Your task to perform on an android device: Open Google Image 0: 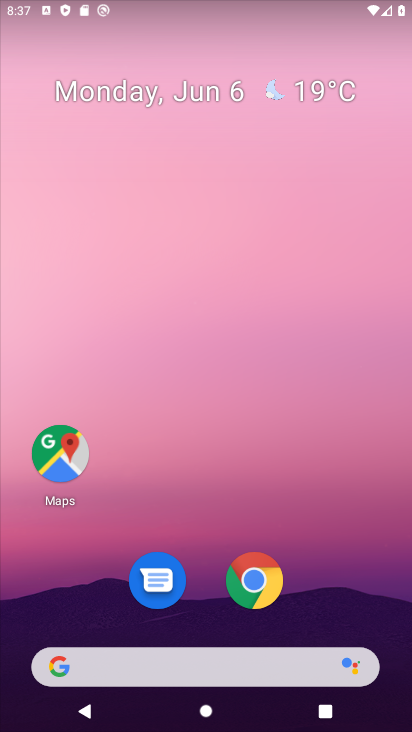
Step 0: drag from (299, 668) to (352, 18)
Your task to perform on an android device: Open Google Image 1: 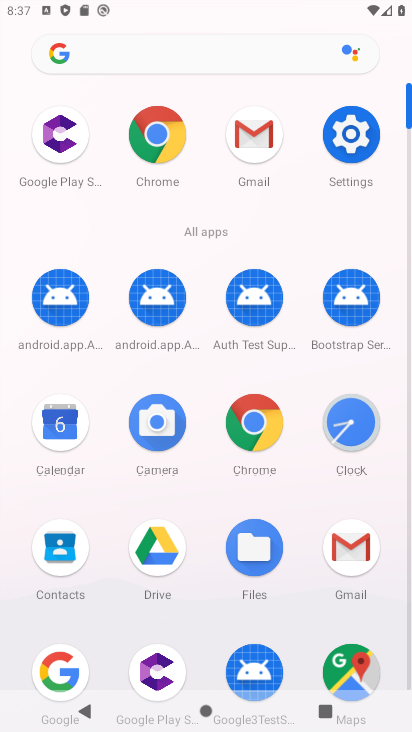
Step 1: click (343, 673)
Your task to perform on an android device: Open Google Image 2: 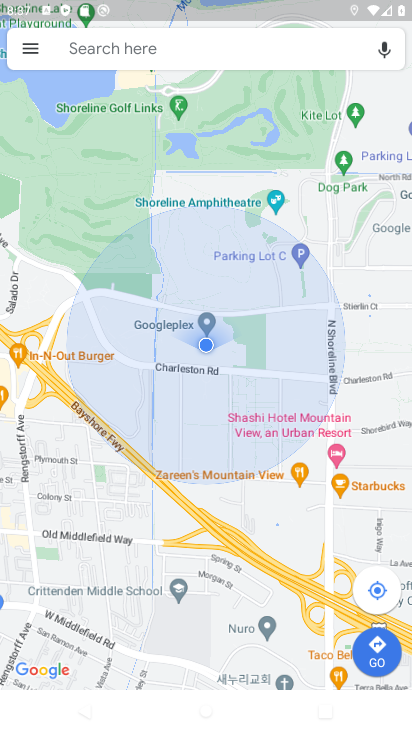
Step 2: task complete